Your task to perform on an android device: change notifications settings Image 0: 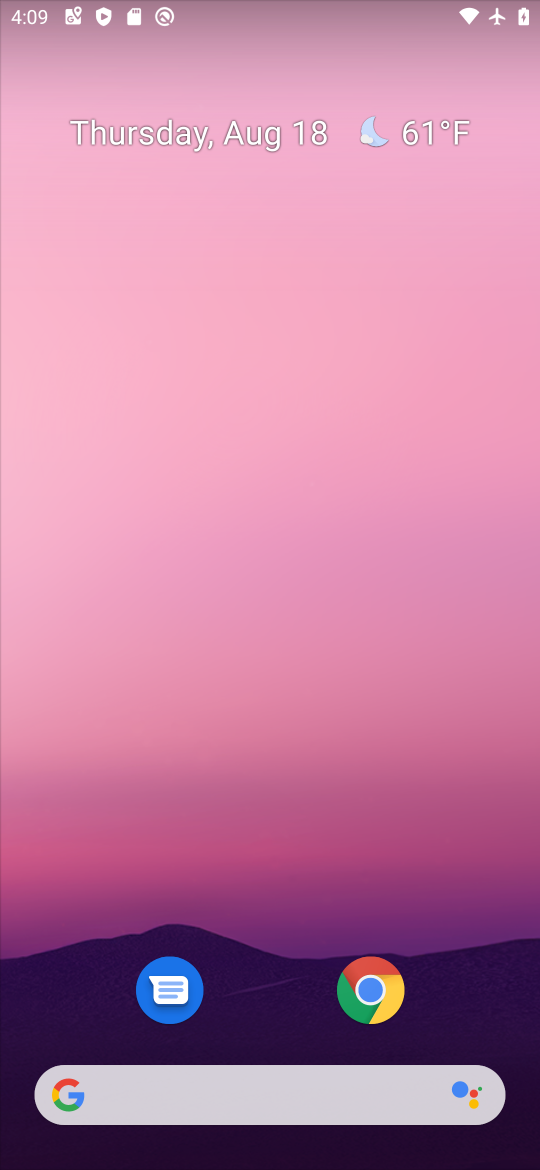
Step 0: drag from (295, 786) to (440, 11)
Your task to perform on an android device: change notifications settings Image 1: 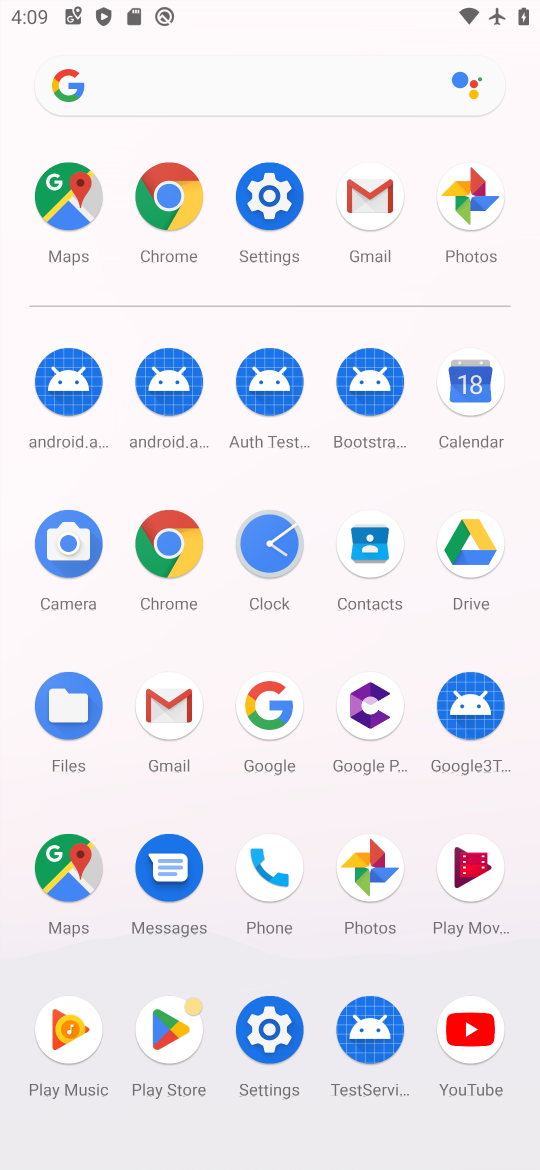
Step 1: click (287, 192)
Your task to perform on an android device: change notifications settings Image 2: 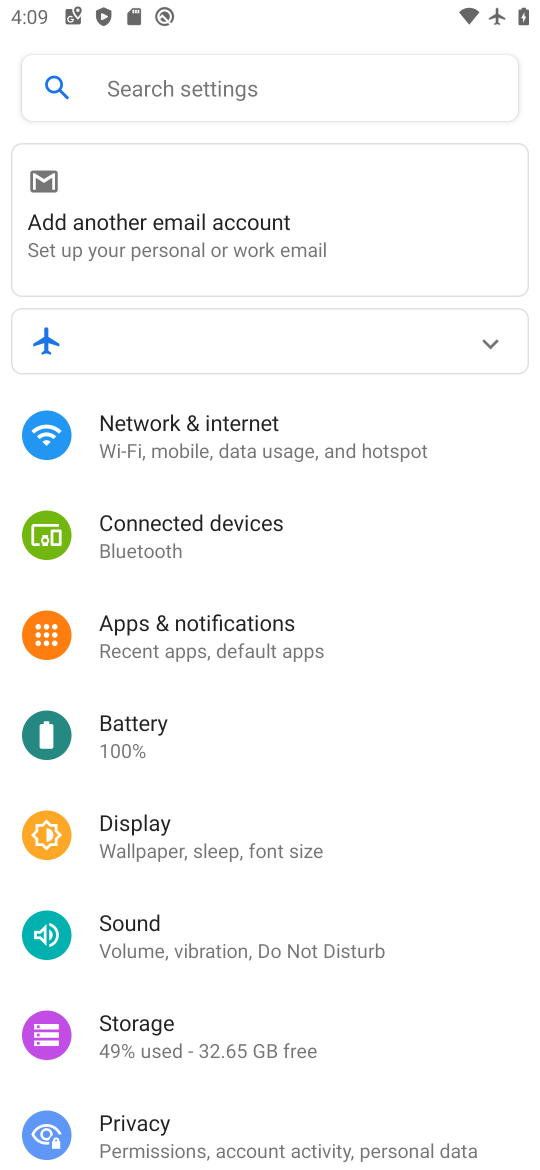
Step 2: click (291, 634)
Your task to perform on an android device: change notifications settings Image 3: 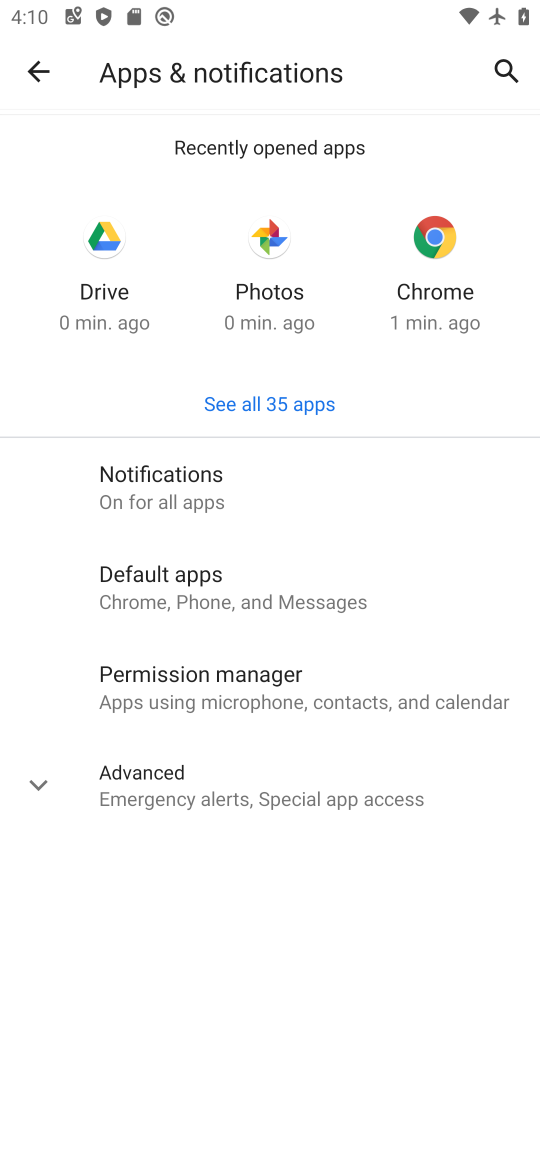
Step 3: click (221, 515)
Your task to perform on an android device: change notifications settings Image 4: 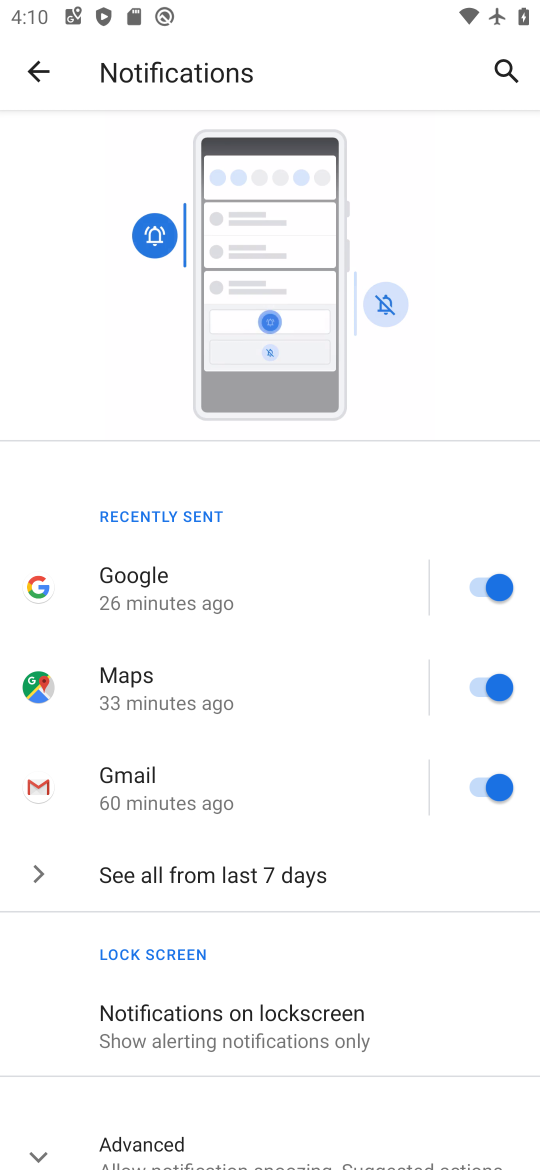
Step 4: task complete